Your task to perform on an android device: Go to settings Image 0: 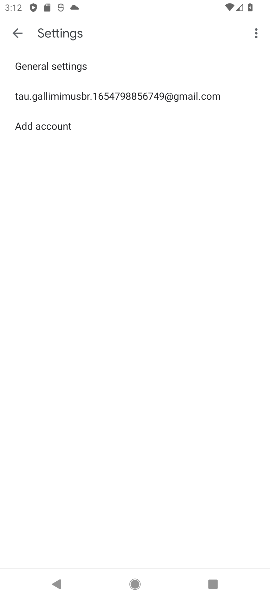
Step 0: press home button
Your task to perform on an android device: Go to settings Image 1: 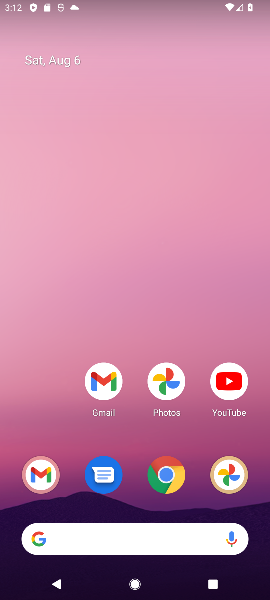
Step 1: drag from (38, 576) to (166, 107)
Your task to perform on an android device: Go to settings Image 2: 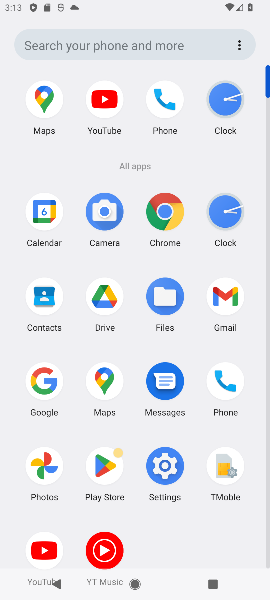
Step 2: click (163, 479)
Your task to perform on an android device: Go to settings Image 3: 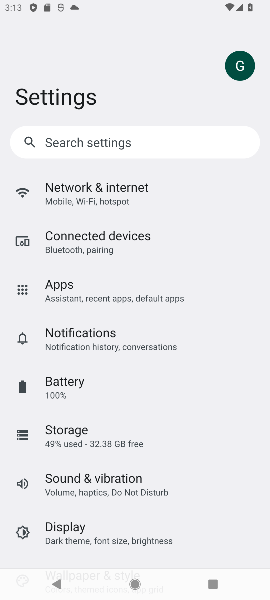
Step 3: task complete